Your task to perform on an android device: Search for Mexican restaurants on Maps Image 0: 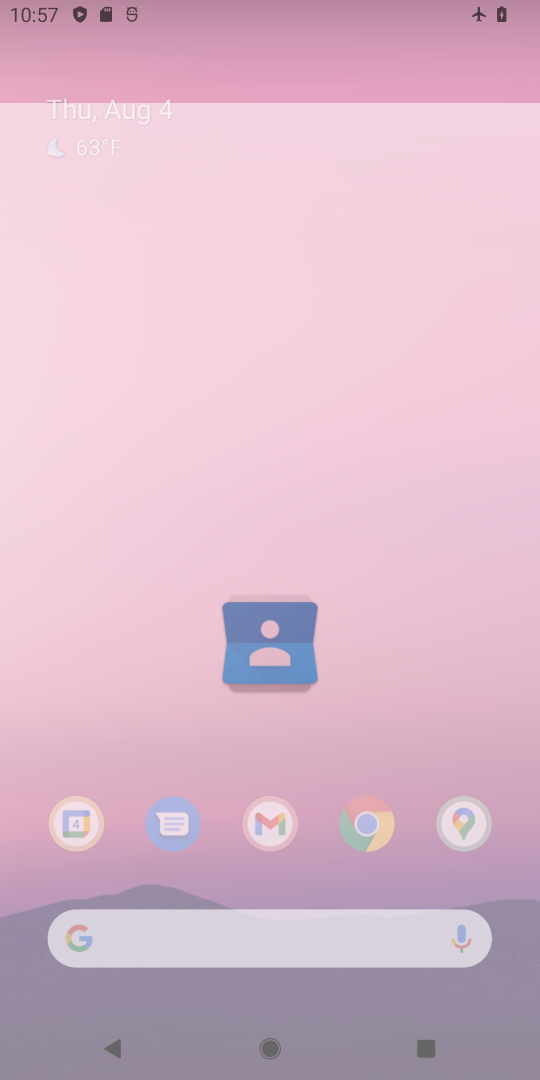
Step 0: press home button
Your task to perform on an android device: Search for Mexican restaurants on Maps Image 1: 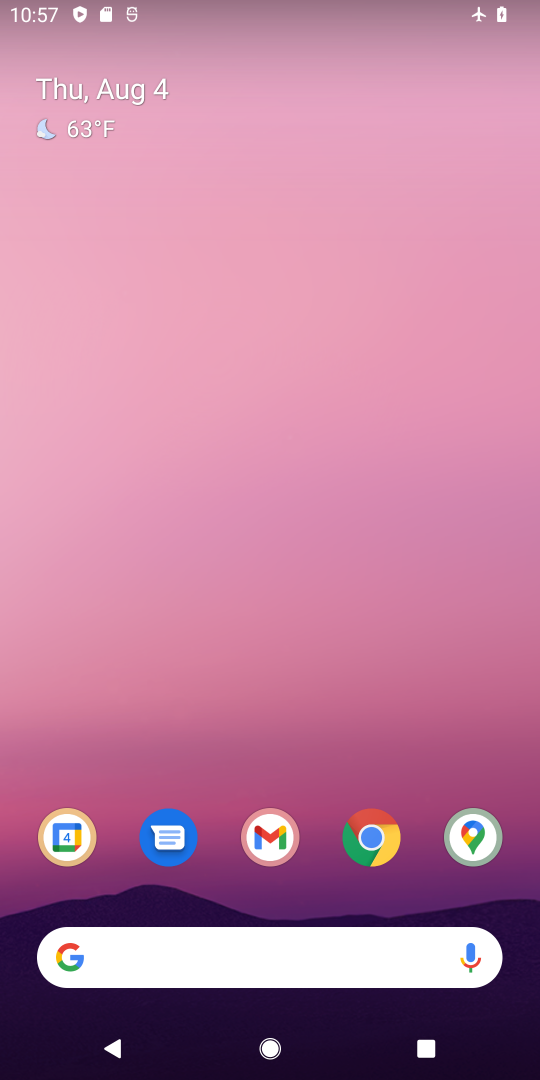
Step 1: drag from (326, 911) to (358, 153)
Your task to perform on an android device: Search for Mexican restaurants on Maps Image 2: 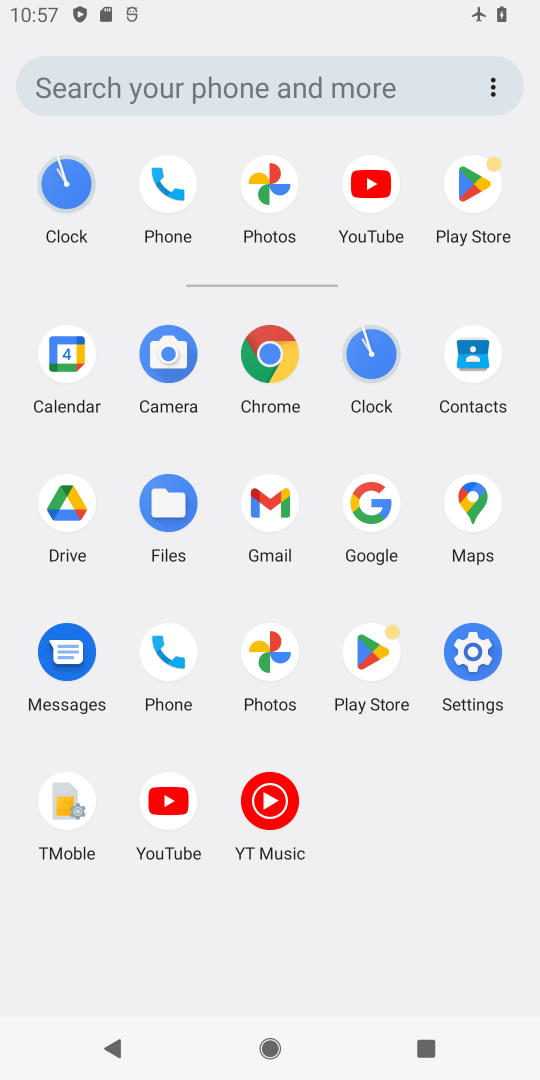
Step 2: click (480, 502)
Your task to perform on an android device: Search for Mexican restaurants on Maps Image 3: 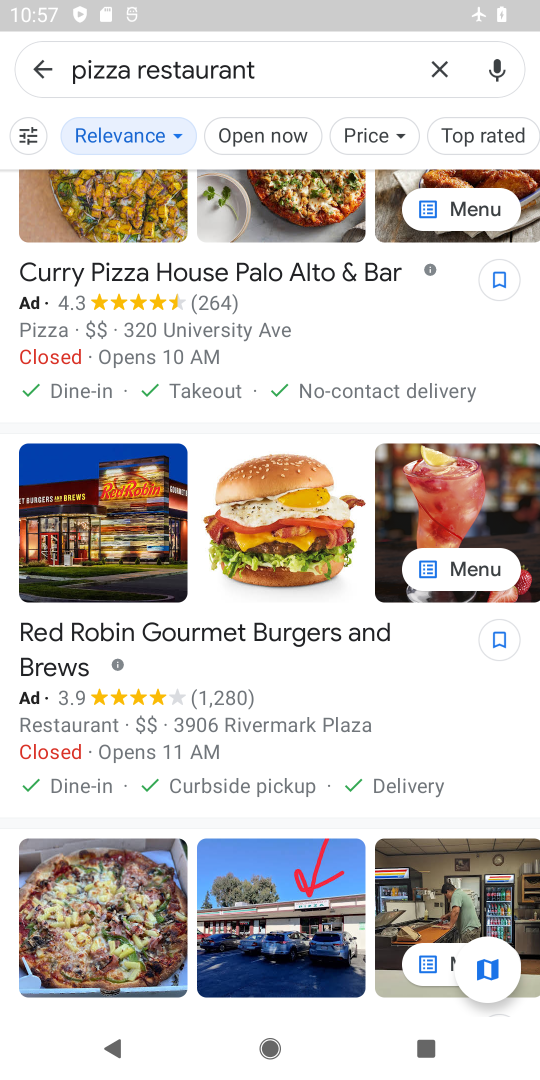
Step 3: click (430, 66)
Your task to perform on an android device: Search for Mexican restaurants on Maps Image 4: 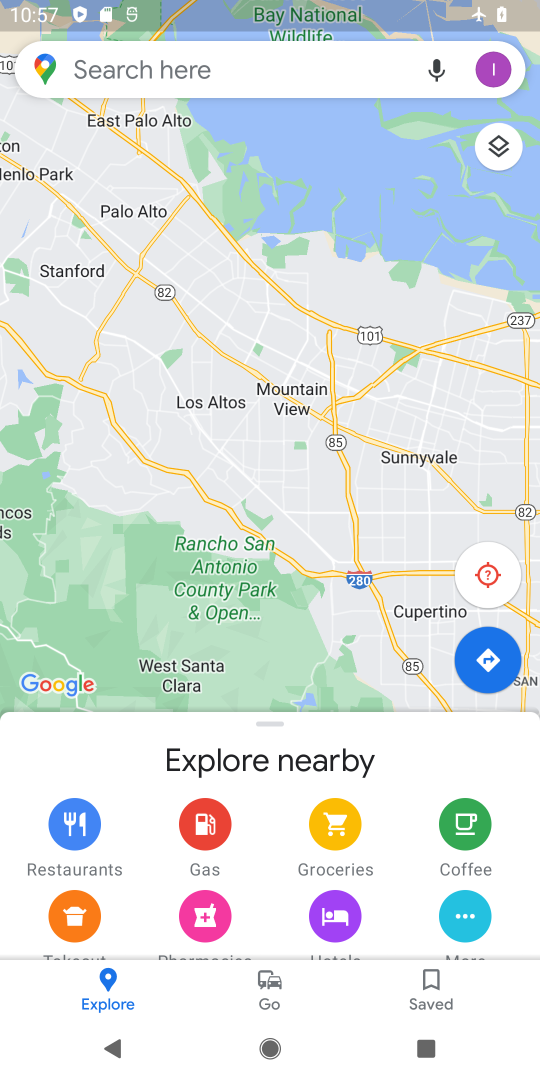
Step 4: click (130, 69)
Your task to perform on an android device: Search for Mexican restaurants on Maps Image 5: 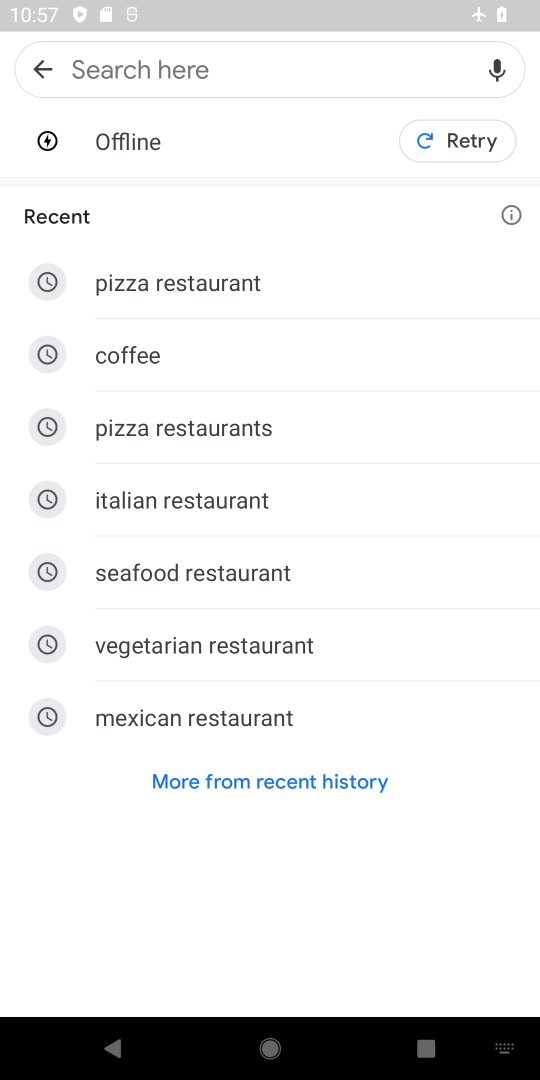
Step 5: click (230, 711)
Your task to perform on an android device: Search for Mexican restaurants on Maps Image 6: 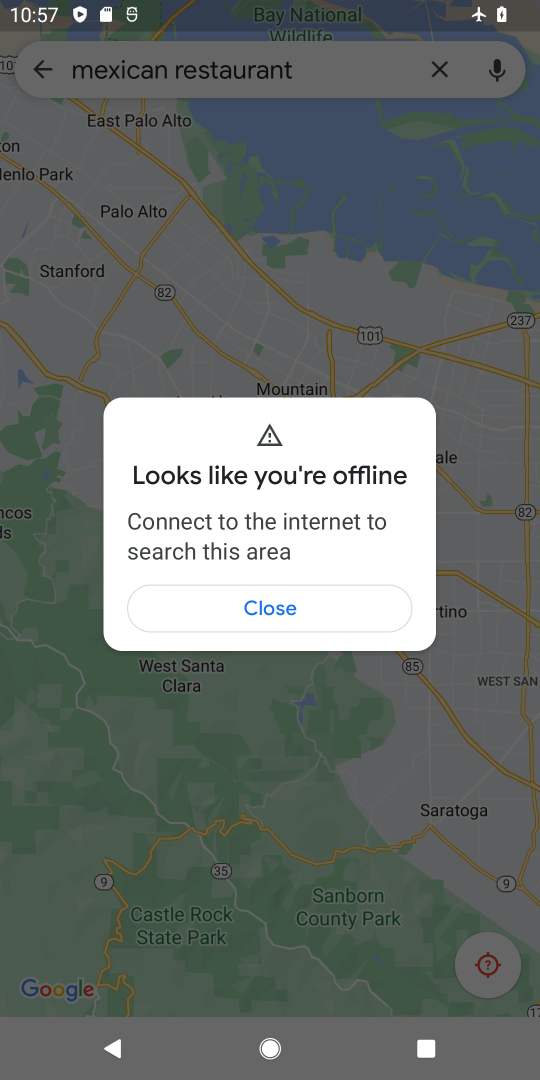
Step 6: task complete